Your task to perform on an android device: check google app version Image 0: 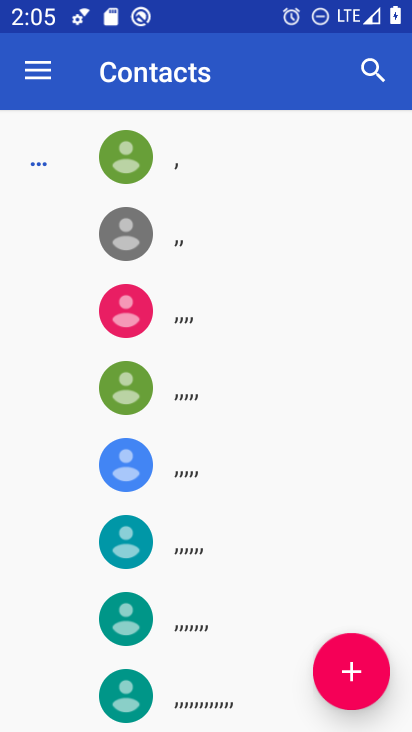
Step 0: press home button
Your task to perform on an android device: check google app version Image 1: 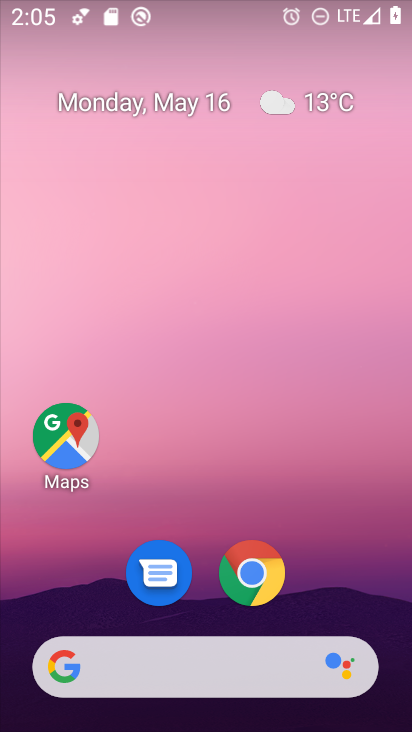
Step 1: drag from (229, 664) to (7, 513)
Your task to perform on an android device: check google app version Image 2: 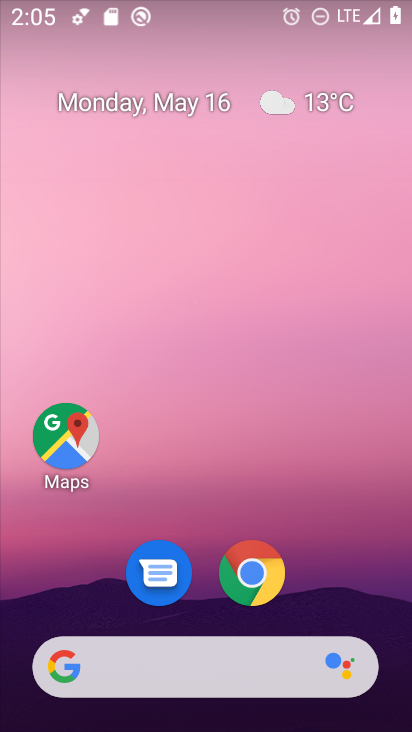
Step 2: click (59, 606)
Your task to perform on an android device: check google app version Image 3: 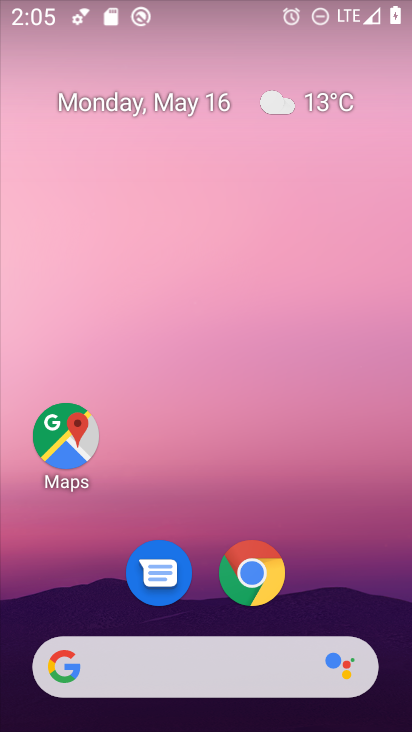
Step 3: drag from (143, 695) to (93, 172)
Your task to perform on an android device: check google app version Image 4: 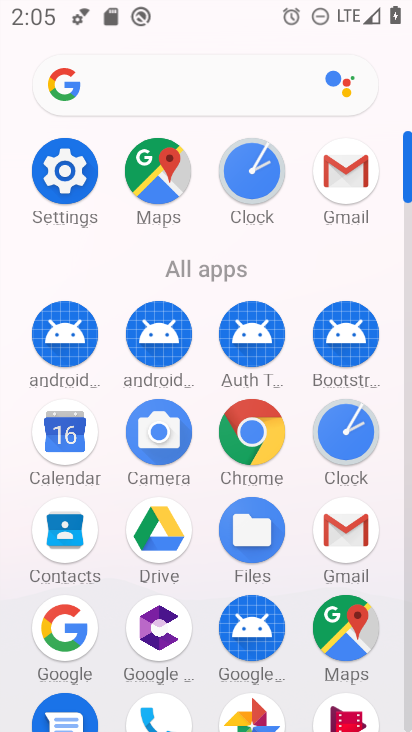
Step 4: click (82, 628)
Your task to perform on an android device: check google app version Image 5: 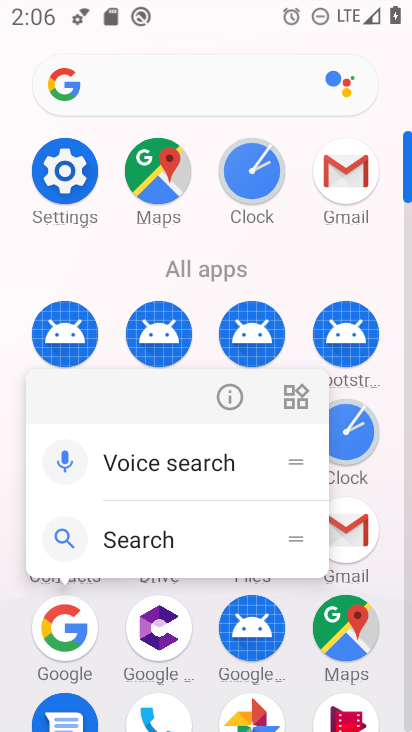
Step 5: click (228, 408)
Your task to perform on an android device: check google app version Image 6: 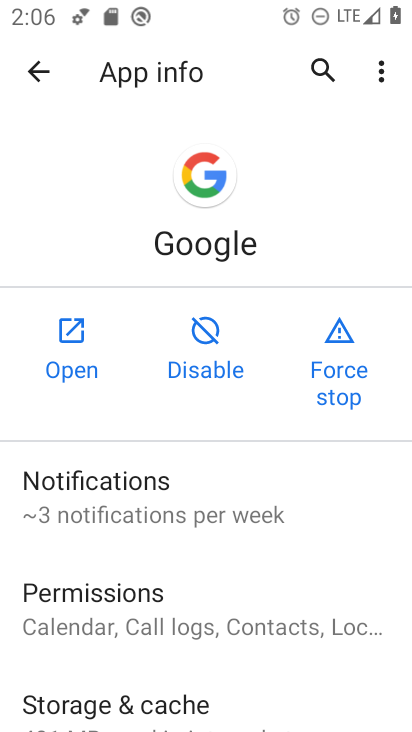
Step 6: drag from (284, 638) to (98, 67)
Your task to perform on an android device: check google app version Image 7: 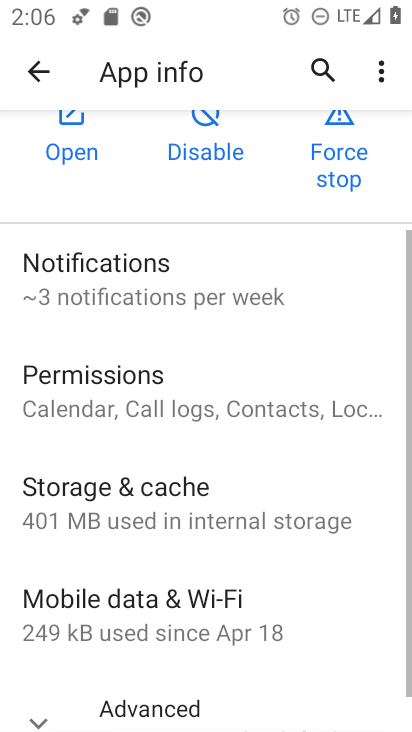
Step 7: drag from (185, 651) to (178, 29)
Your task to perform on an android device: check google app version Image 8: 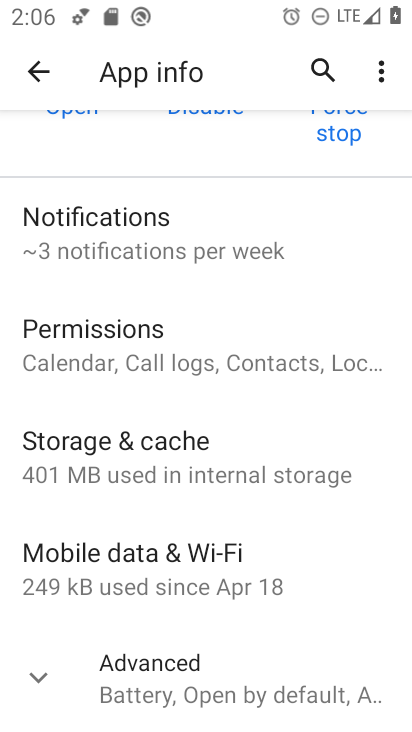
Step 8: click (151, 661)
Your task to perform on an android device: check google app version Image 9: 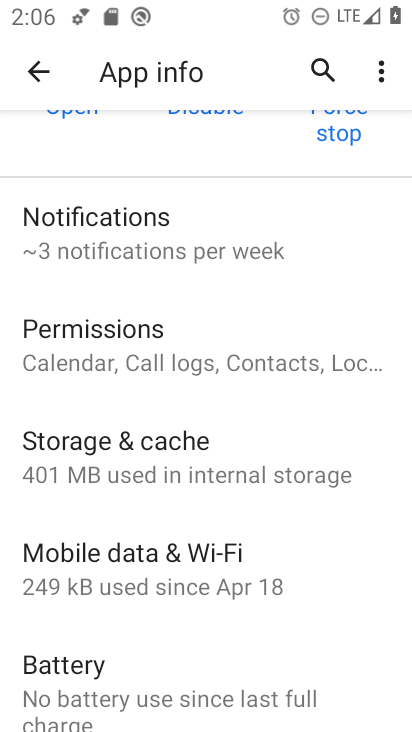
Step 9: task complete